Your task to perform on an android device: Go to sound settings Image 0: 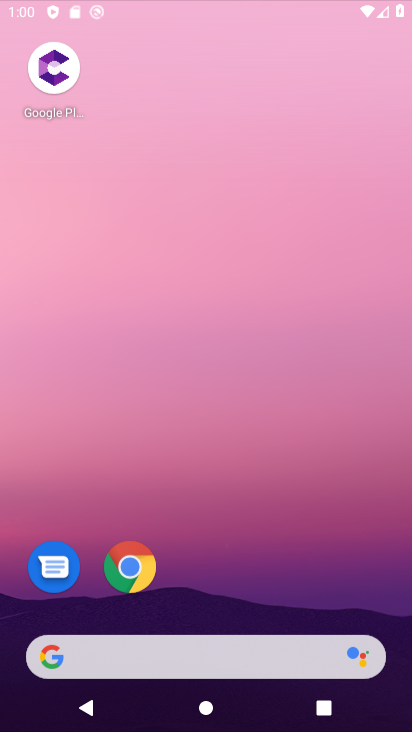
Step 0: drag from (196, 196) to (184, 80)
Your task to perform on an android device: Go to sound settings Image 1: 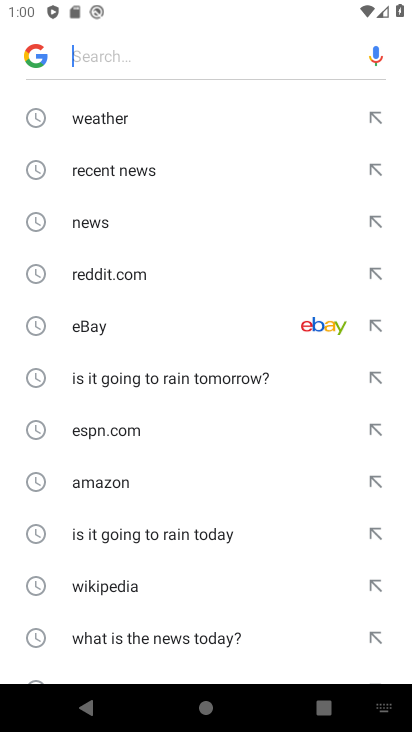
Step 1: press home button
Your task to perform on an android device: Go to sound settings Image 2: 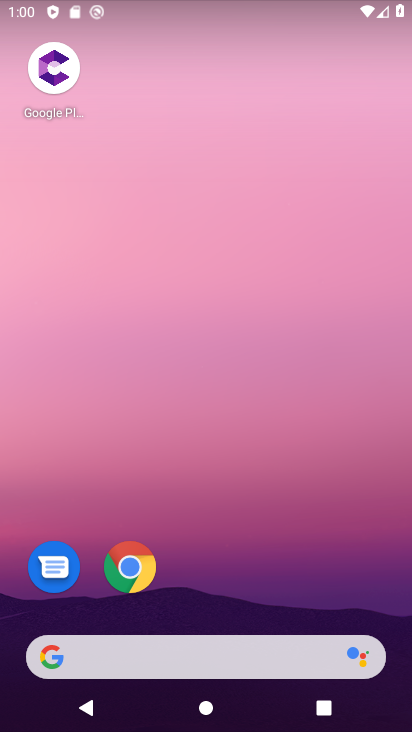
Step 2: drag from (210, 618) to (251, 1)
Your task to perform on an android device: Go to sound settings Image 3: 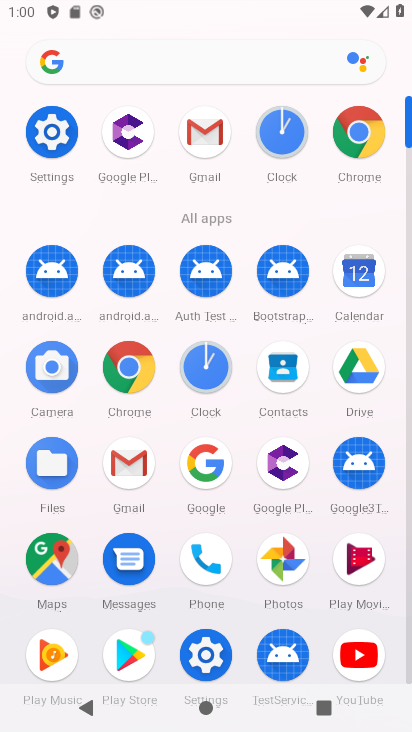
Step 3: click (51, 124)
Your task to perform on an android device: Go to sound settings Image 4: 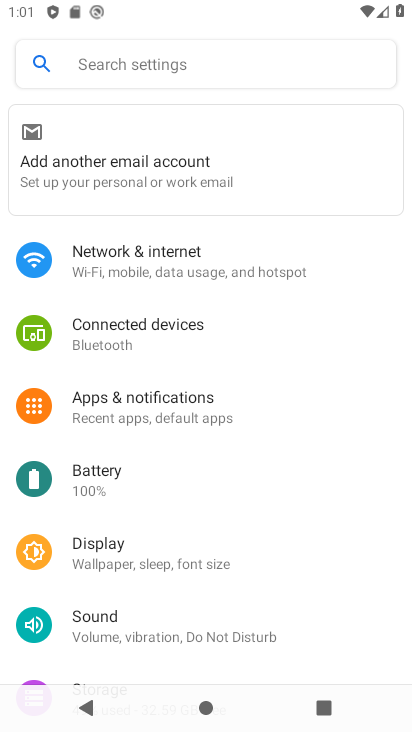
Step 4: click (131, 613)
Your task to perform on an android device: Go to sound settings Image 5: 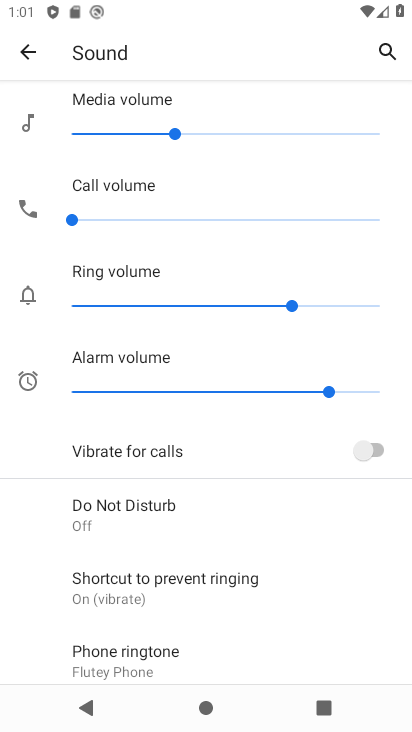
Step 5: drag from (194, 643) to (215, 247)
Your task to perform on an android device: Go to sound settings Image 6: 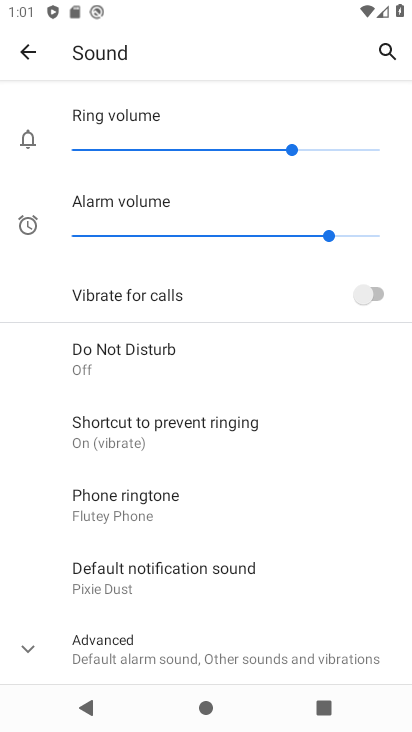
Step 6: click (29, 646)
Your task to perform on an android device: Go to sound settings Image 7: 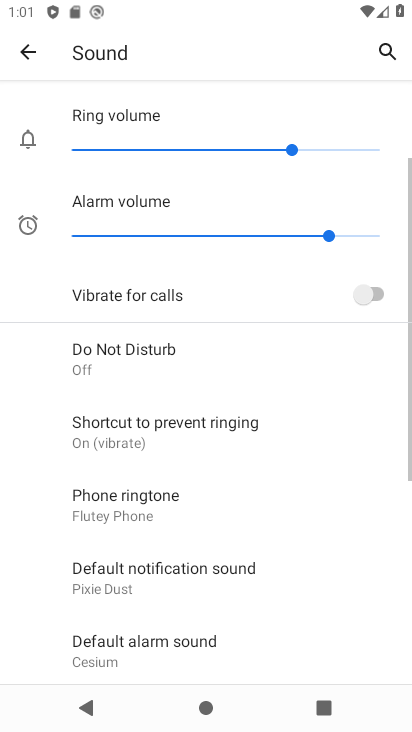
Step 7: task complete